Your task to perform on an android device: check storage Image 0: 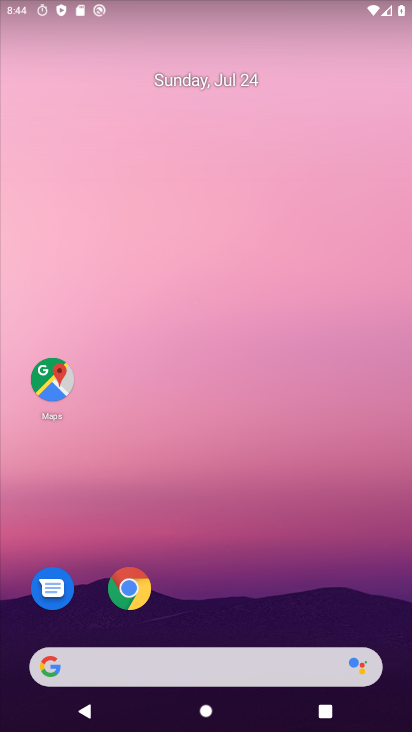
Step 0: drag from (391, 659) to (337, 149)
Your task to perform on an android device: check storage Image 1: 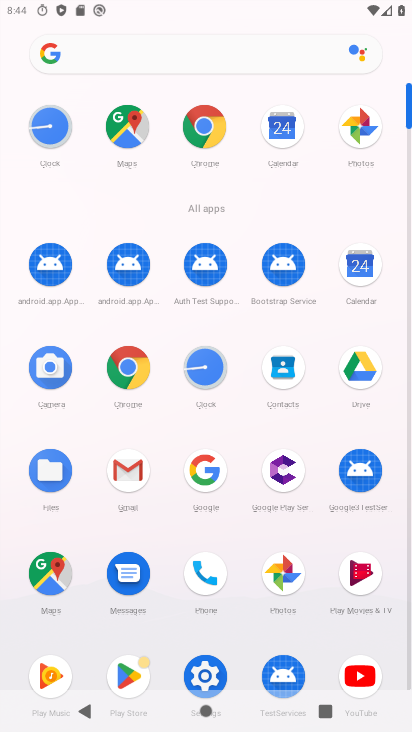
Step 1: click (205, 664)
Your task to perform on an android device: check storage Image 2: 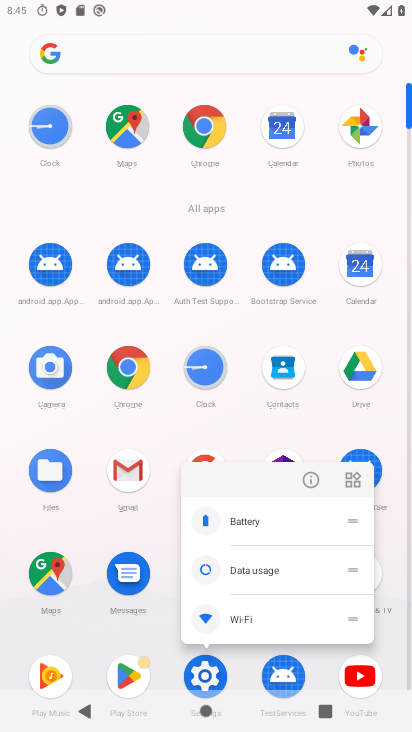
Step 2: click (206, 664)
Your task to perform on an android device: check storage Image 3: 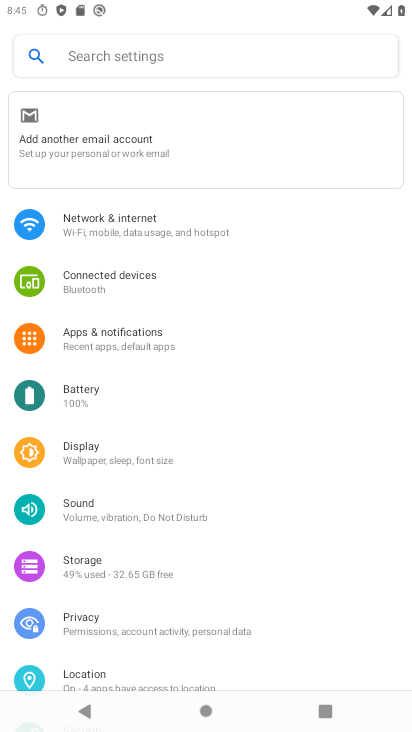
Step 3: click (95, 570)
Your task to perform on an android device: check storage Image 4: 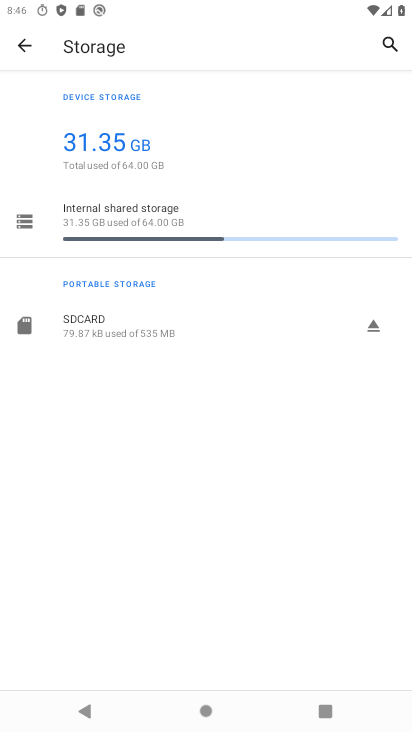
Step 4: task complete